Your task to perform on an android device: Open the stopwatch Image 0: 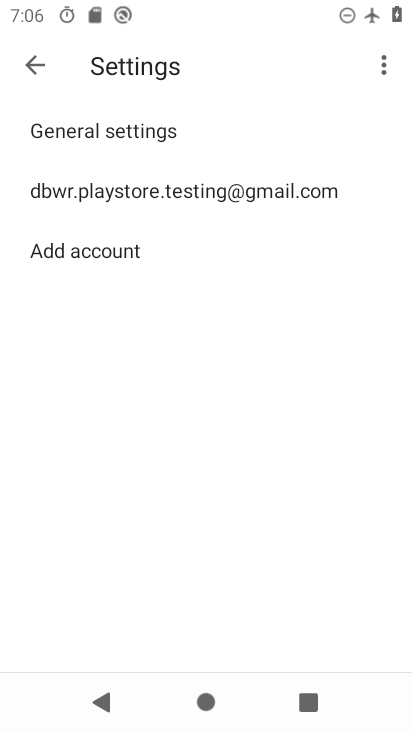
Step 0: press home button
Your task to perform on an android device: Open the stopwatch Image 1: 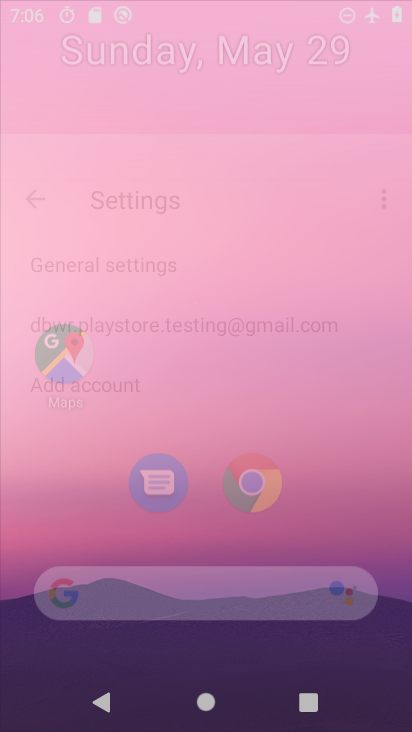
Step 1: drag from (364, 610) to (297, 8)
Your task to perform on an android device: Open the stopwatch Image 2: 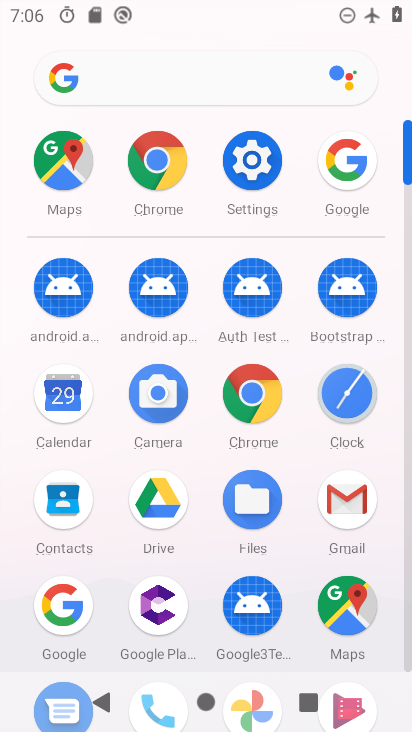
Step 2: click (336, 414)
Your task to perform on an android device: Open the stopwatch Image 3: 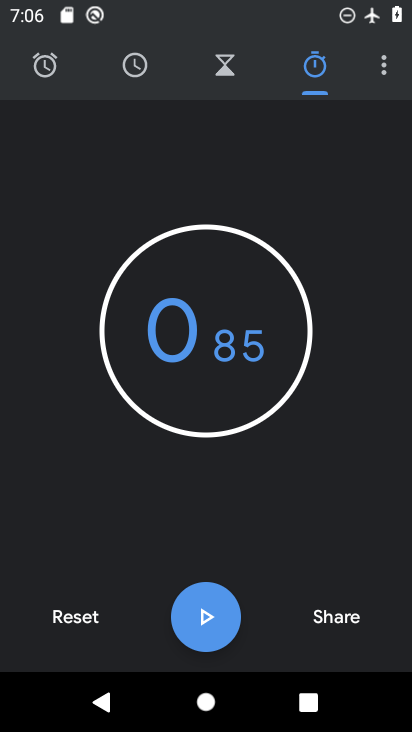
Step 3: task complete